Your task to perform on an android device: show emergency info Image 0: 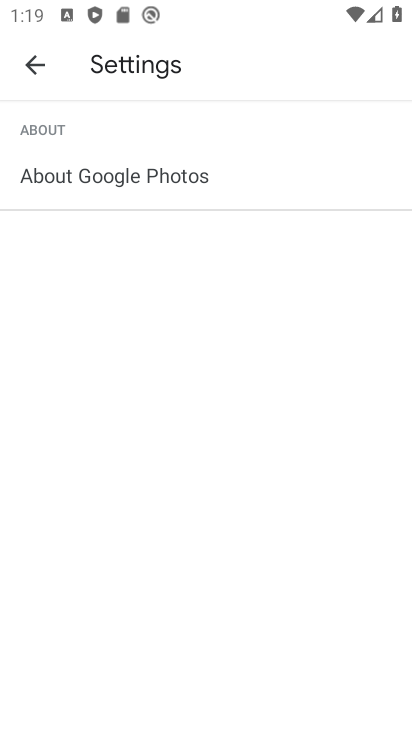
Step 0: drag from (97, 613) to (255, 193)
Your task to perform on an android device: show emergency info Image 1: 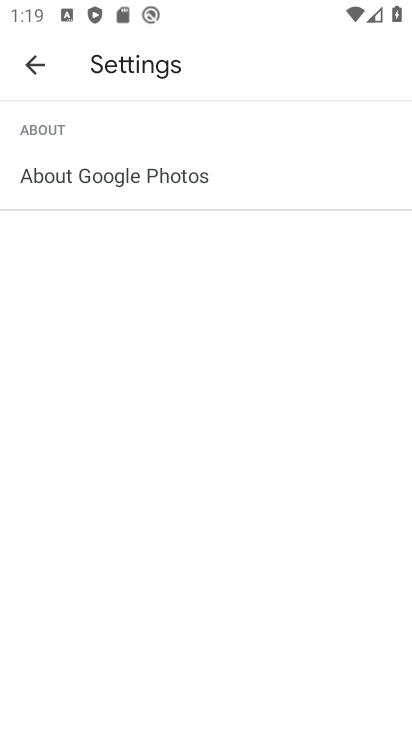
Step 1: drag from (147, 611) to (326, 128)
Your task to perform on an android device: show emergency info Image 2: 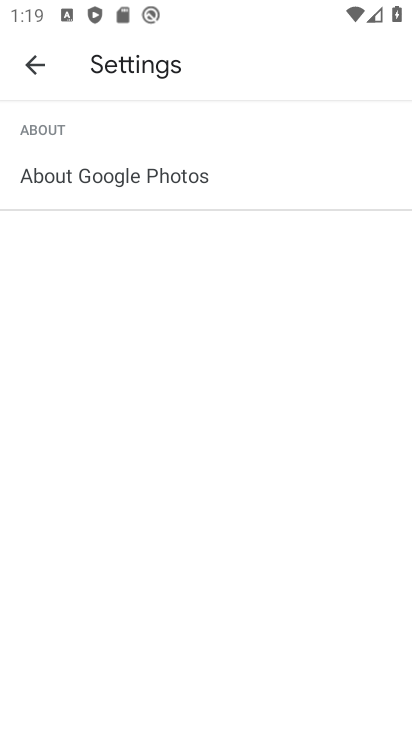
Step 2: click (263, 560)
Your task to perform on an android device: show emergency info Image 3: 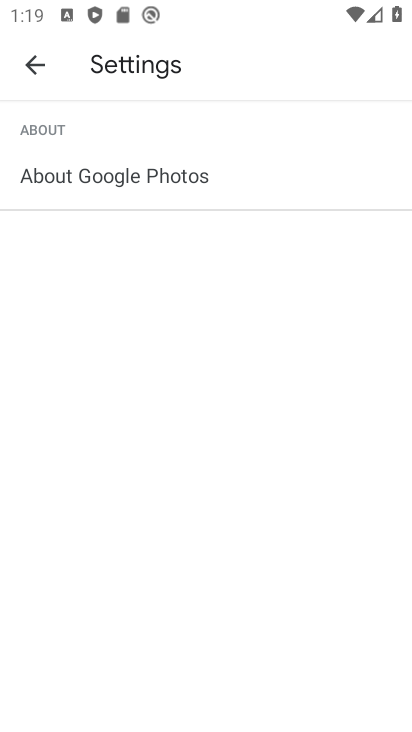
Step 3: click (16, 66)
Your task to perform on an android device: show emergency info Image 4: 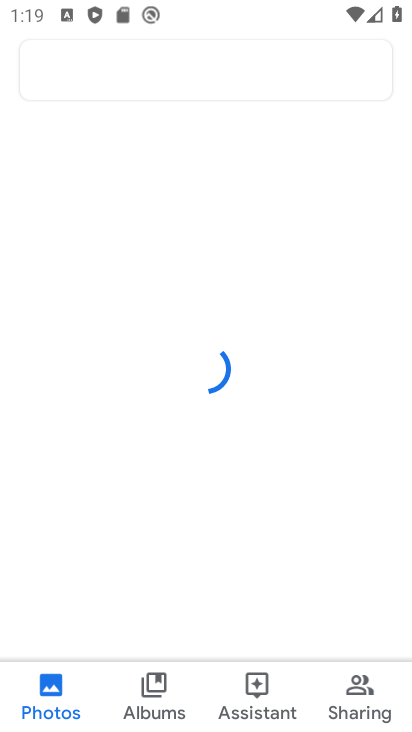
Step 4: drag from (251, 519) to (343, 252)
Your task to perform on an android device: show emergency info Image 5: 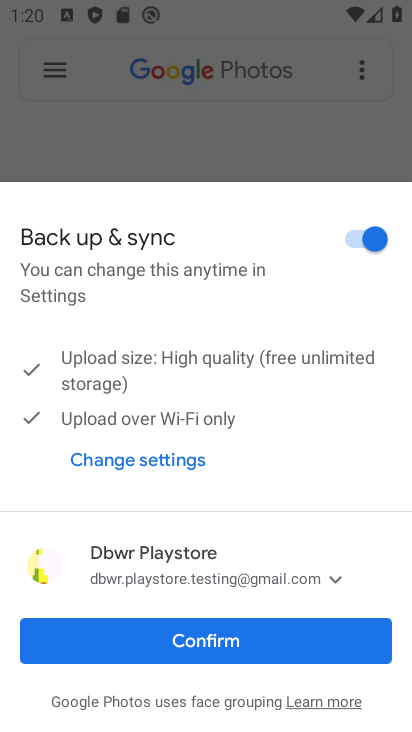
Step 5: click (261, 149)
Your task to perform on an android device: show emergency info Image 6: 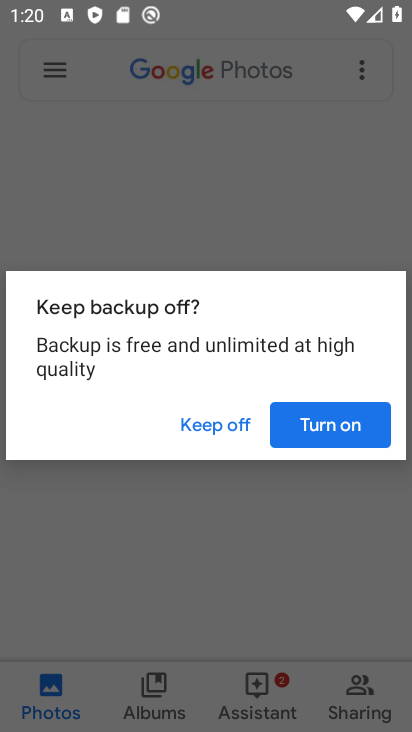
Step 6: press home button
Your task to perform on an android device: show emergency info Image 7: 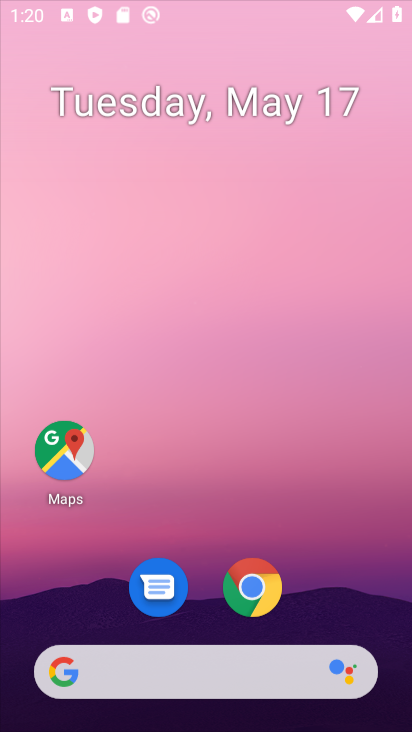
Step 7: drag from (209, 555) to (282, 5)
Your task to perform on an android device: show emergency info Image 8: 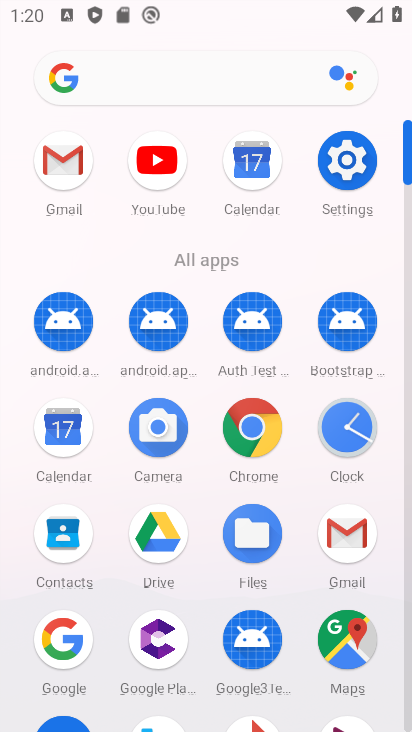
Step 8: click (329, 143)
Your task to perform on an android device: show emergency info Image 9: 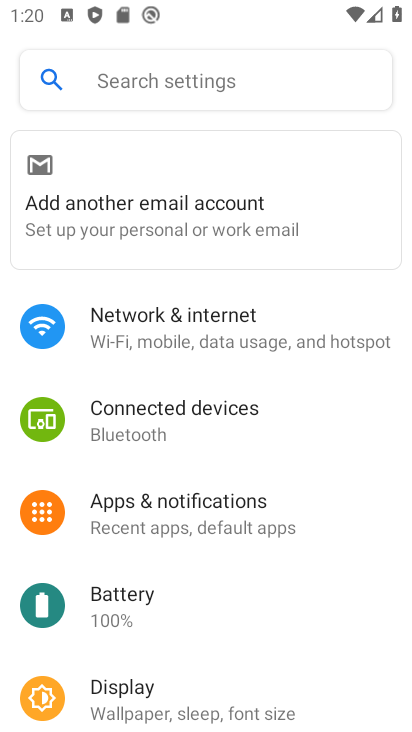
Step 9: drag from (247, 592) to (372, 107)
Your task to perform on an android device: show emergency info Image 10: 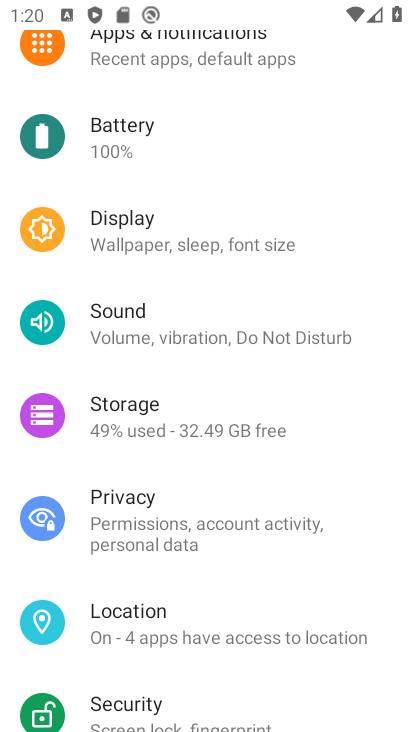
Step 10: drag from (238, 647) to (294, 74)
Your task to perform on an android device: show emergency info Image 11: 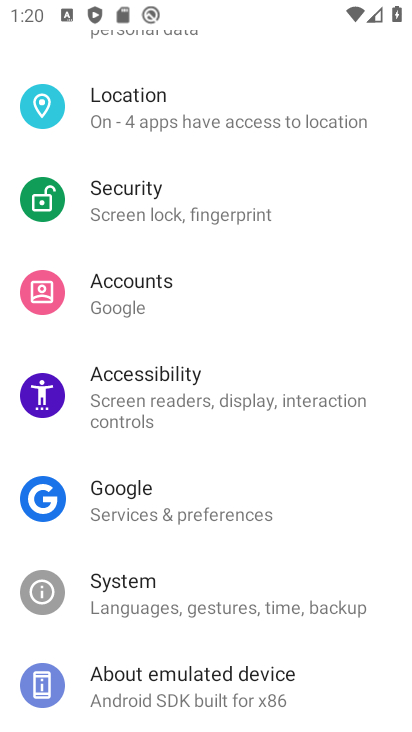
Step 11: click (192, 696)
Your task to perform on an android device: show emergency info Image 12: 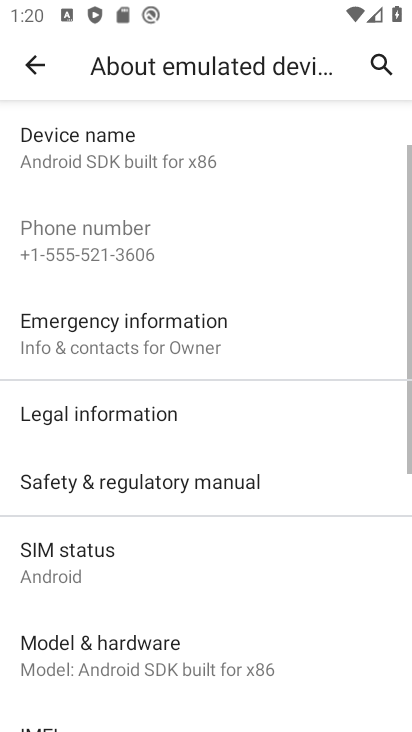
Step 12: click (193, 338)
Your task to perform on an android device: show emergency info Image 13: 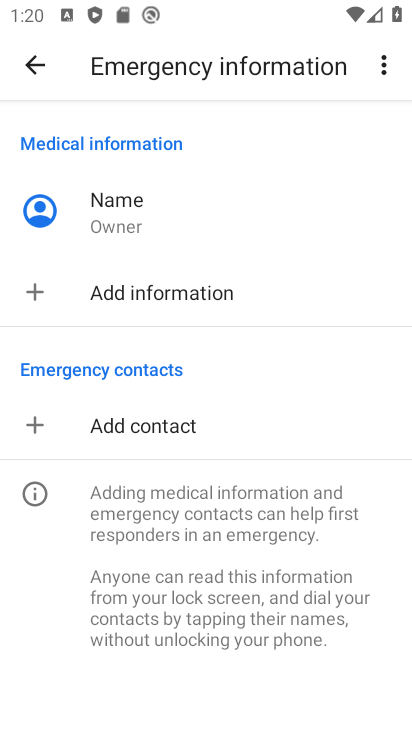
Step 13: task complete